Your task to perform on an android device: Go to Yahoo.com Image 0: 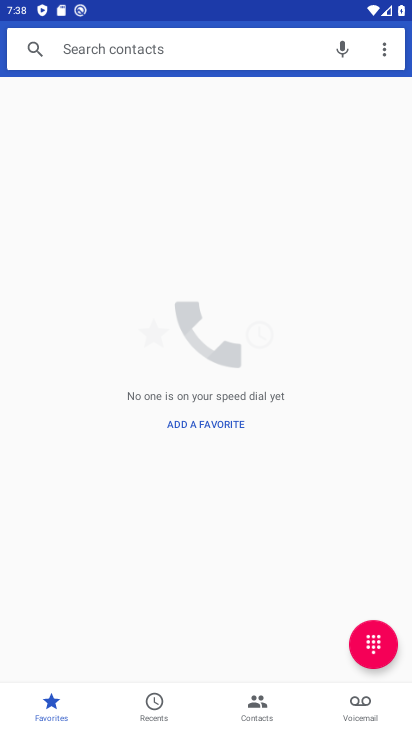
Step 0: press home button
Your task to perform on an android device: Go to Yahoo.com Image 1: 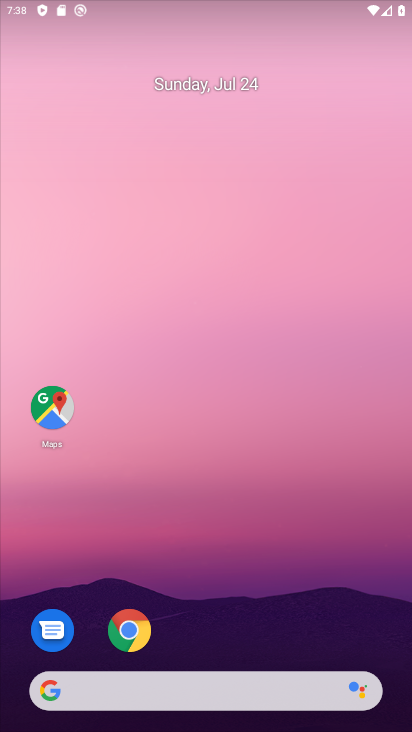
Step 1: click (141, 627)
Your task to perform on an android device: Go to Yahoo.com Image 2: 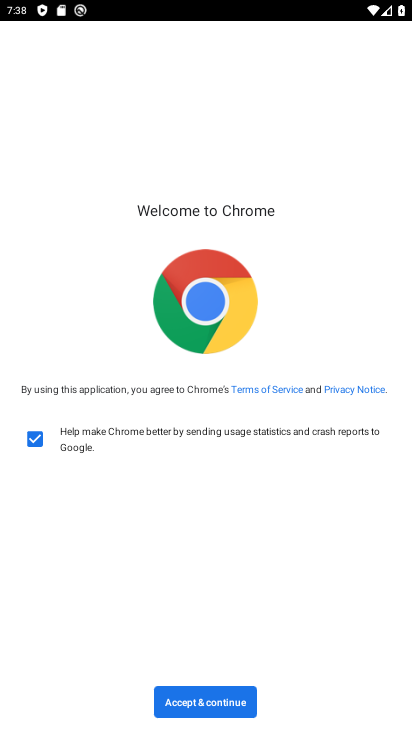
Step 2: click (213, 700)
Your task to perform on an android device: Go to Yahoo.com Image 3: 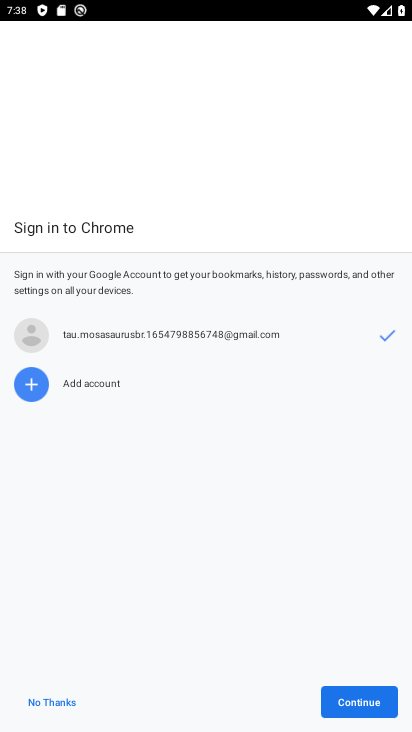
Step 3: click (378, 711)
Your task to perform on an android device: Go to Yahoo.com Image 4: 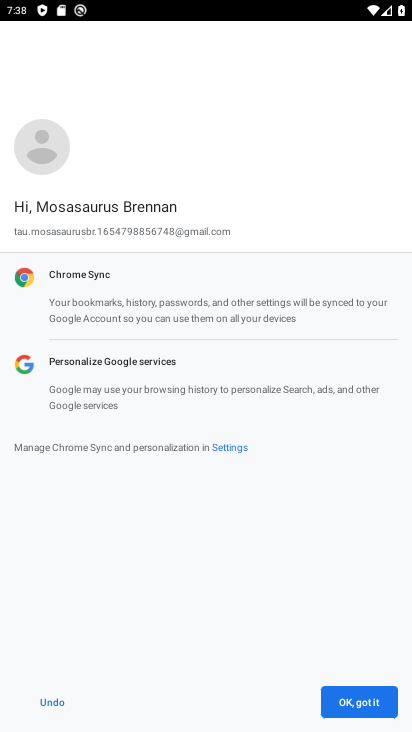
Step 4: click (380, 702)
Your task to perform on an android device: Go to Yahoo.com Image 5: 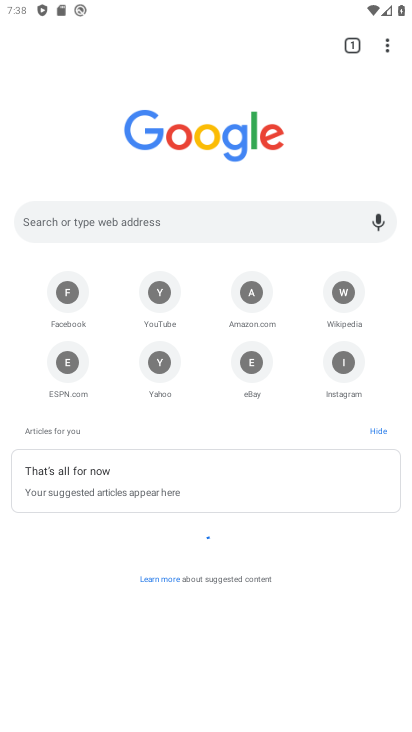
Step 5: click (151, 370)
Your task to perform on an android device: Go to Yahoo.com Image 6: 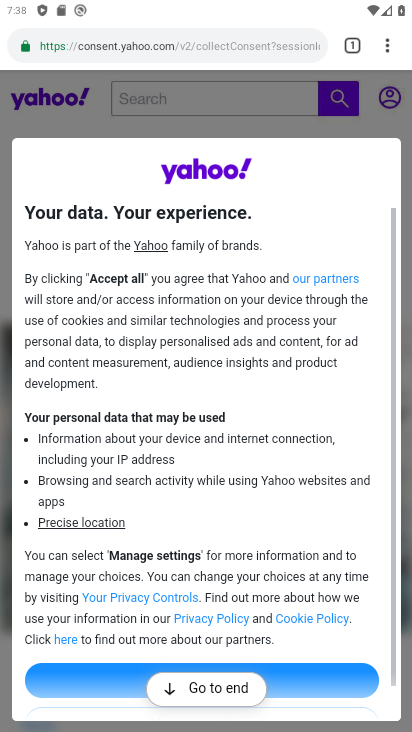
Step 6: task complete